Your task to perform on an android device: manage bookmarks in the chrome app Image 0: 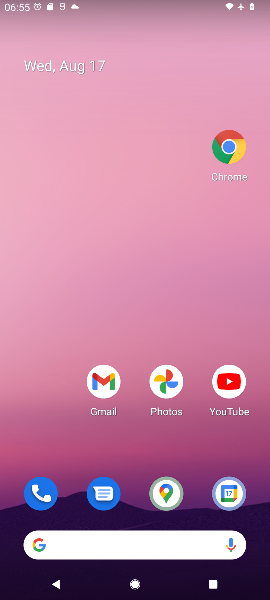
Step 0: press home button
Your task to perform on an android device: manage bookmarks in the chrome app Image 1: 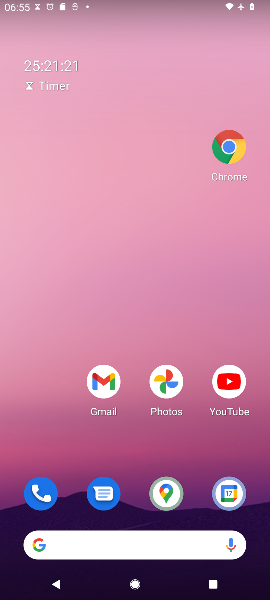
Step 1: click (226, 145)
Your task to perform on an android device: manage bookmarks in the chrome app Image 2: 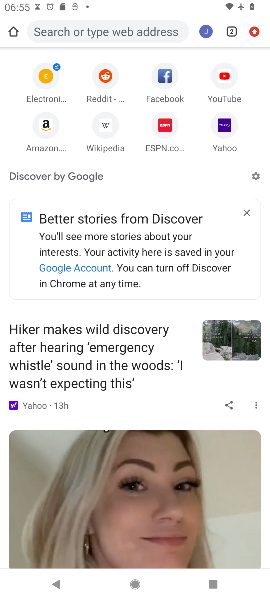
Step 2: drag from (256, 26) to (176, 213)
Your task to perform on an android device: manage bookmarks in the chrome app Image 3: 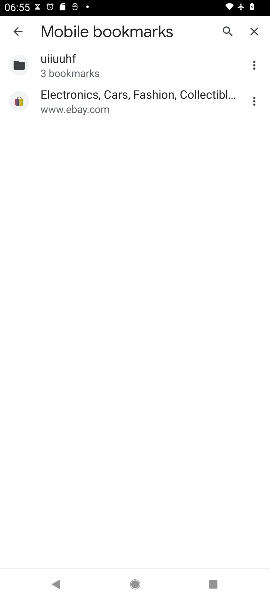
Step 3: click (254, 105)
Your task to perform on an android device: manage bookmarks in the chrome app Image 4: 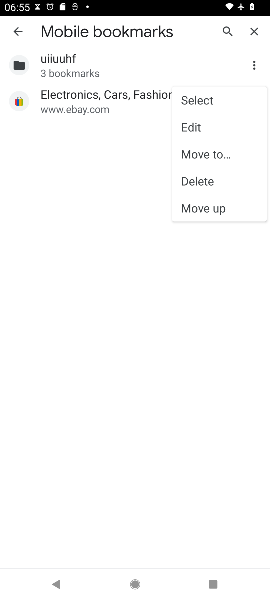
Step 4: click (190, 129)
Your task to perform on an android device: manage bookmarks in the chrome app Image 5: 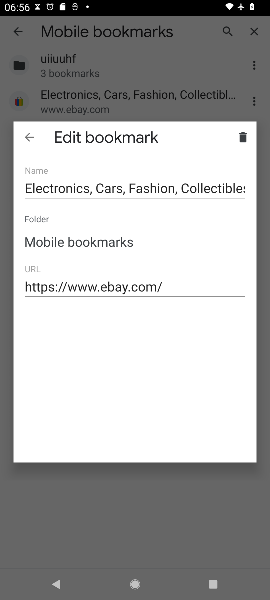
Step 5: task complete